Your task to perform on an android device: Look up the best rated gaming chair on Target. Image 0: 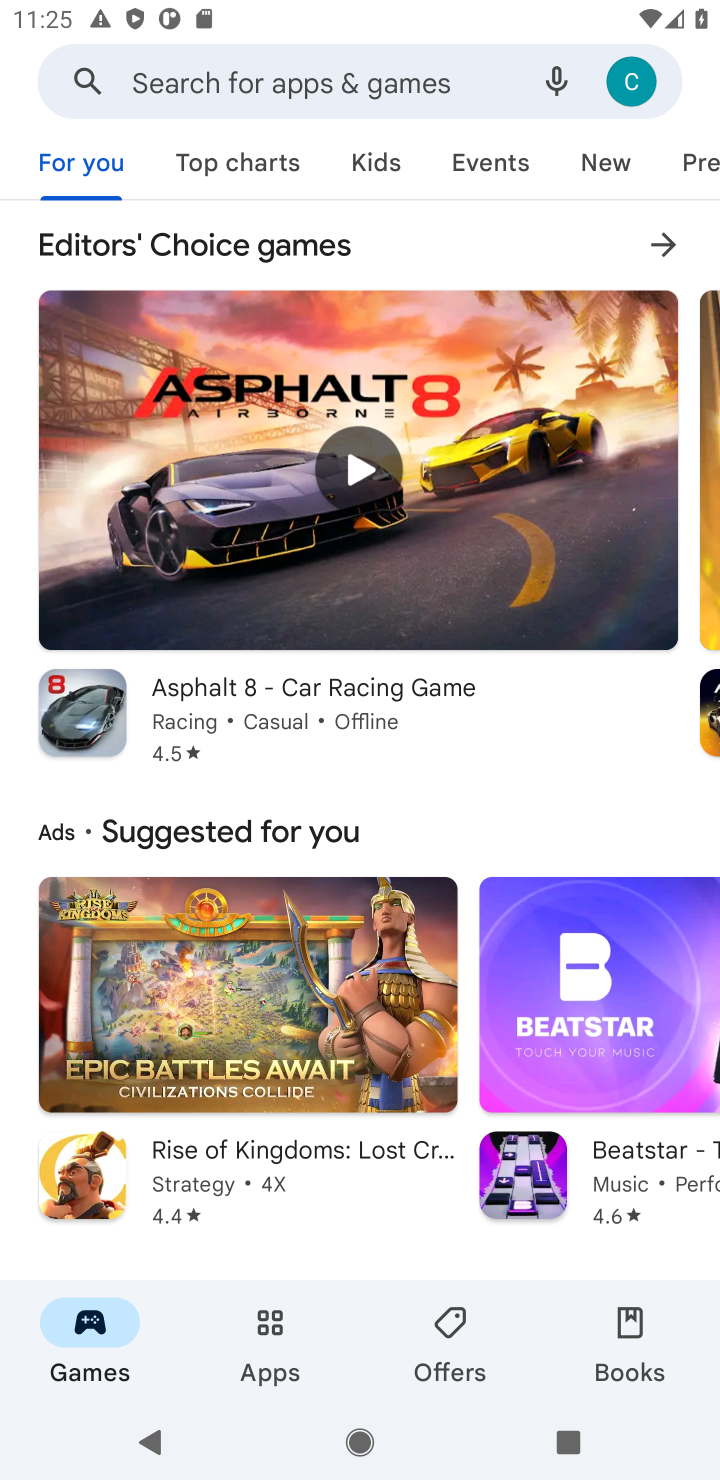
Step 0: press home button
Your task to perform on an android device: Look up the best rated gaming chair on Target. Image 1: 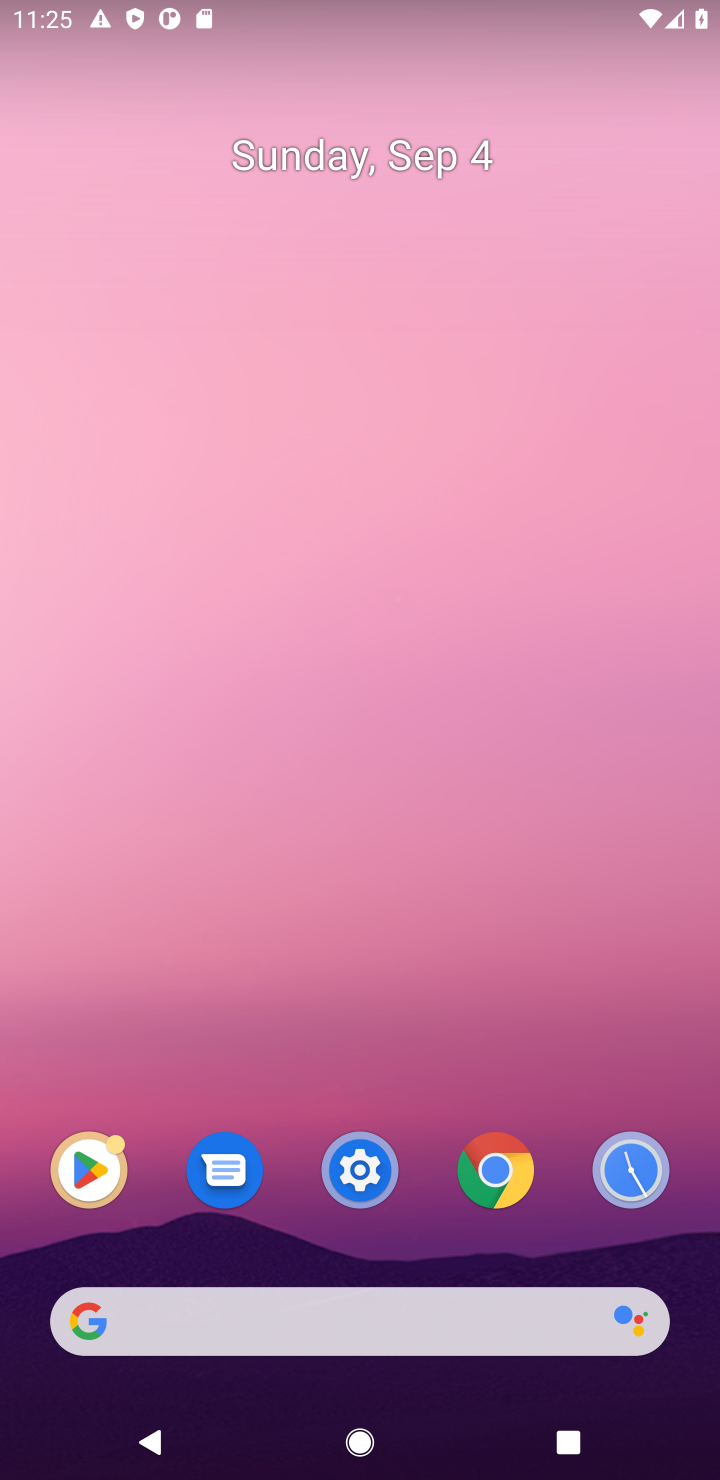
Step 1: click (372, 1314)
Your task to perform on an android device: Look up the best rated gaming chair on Target. Image 2: 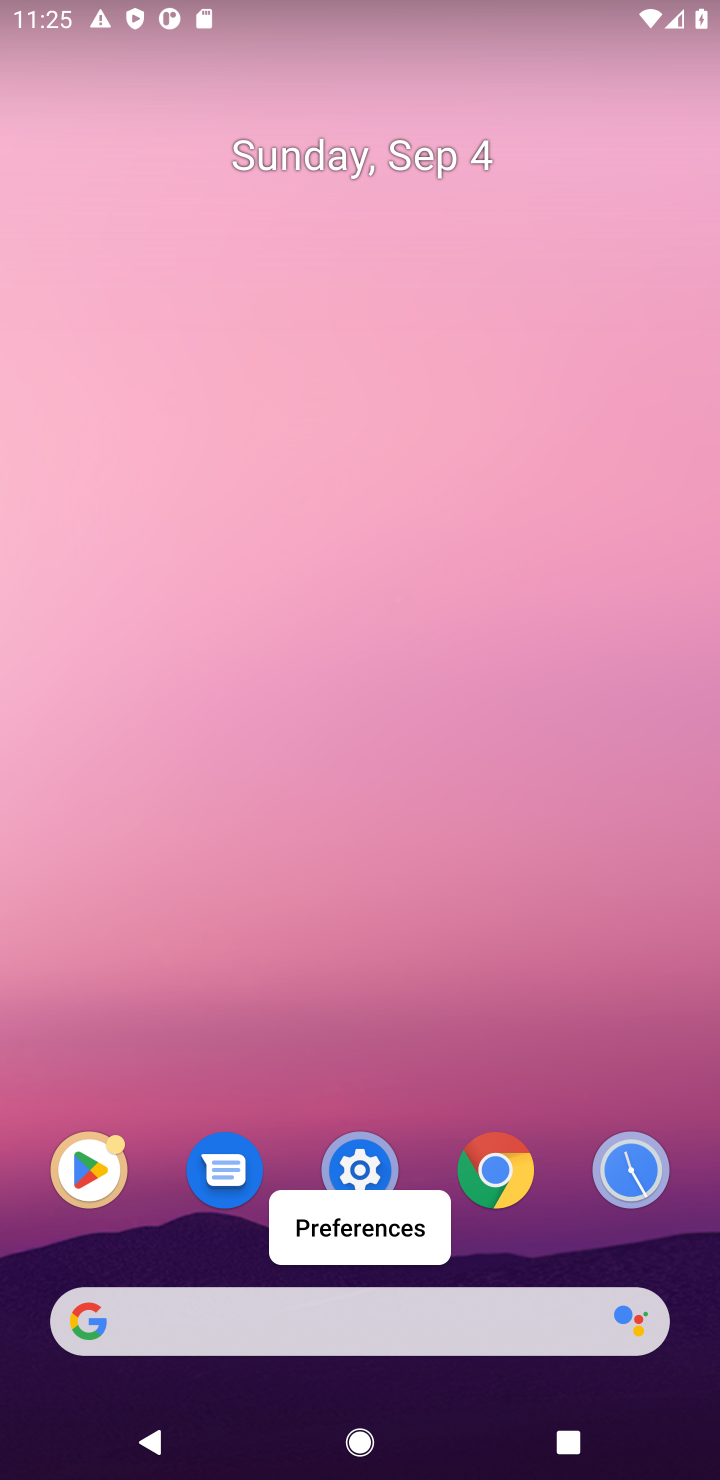
Step 2: click (444, 1331)
Your task to perform on an android device: Look up the best rated gaming chair on Target. Image 3: 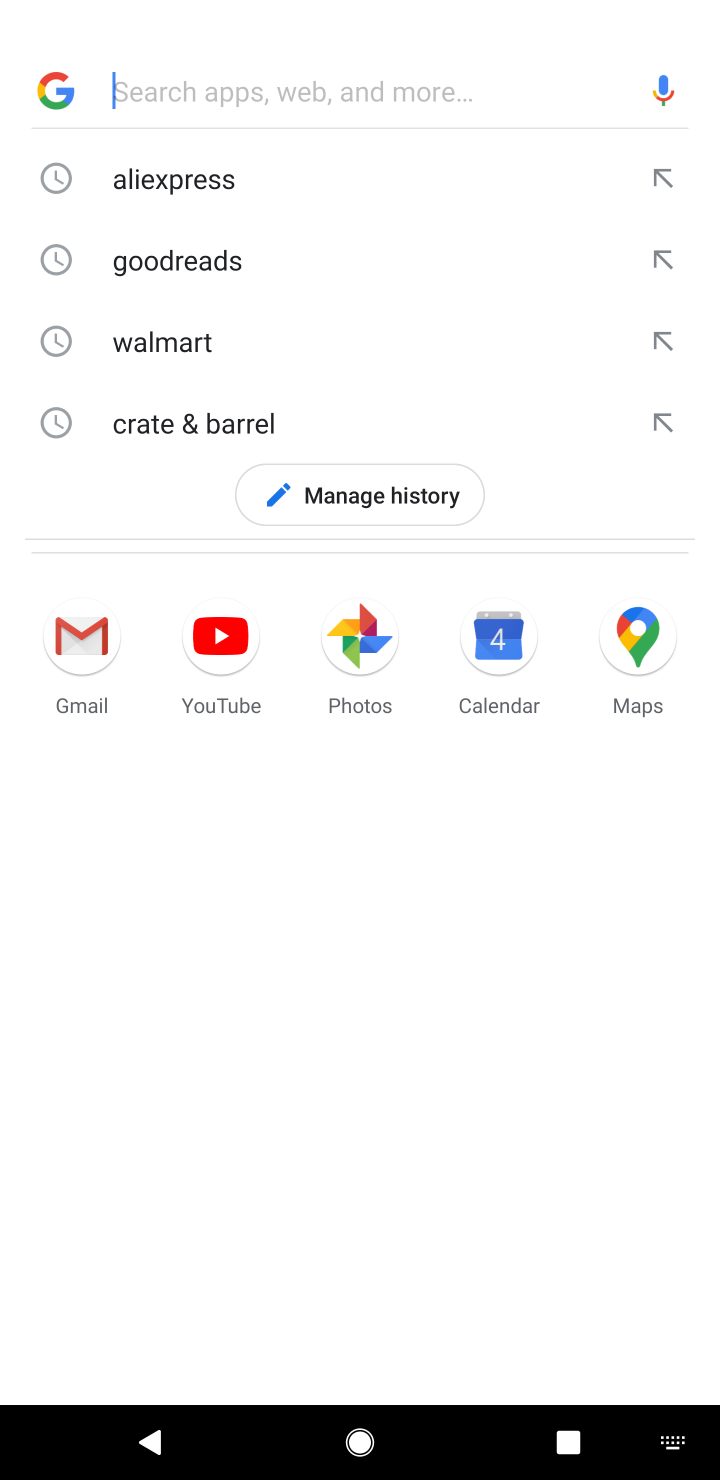
Step 3: type "Target"
Your task to perform on an android device: Look up the best rated gaming chair on Target. Image 4: 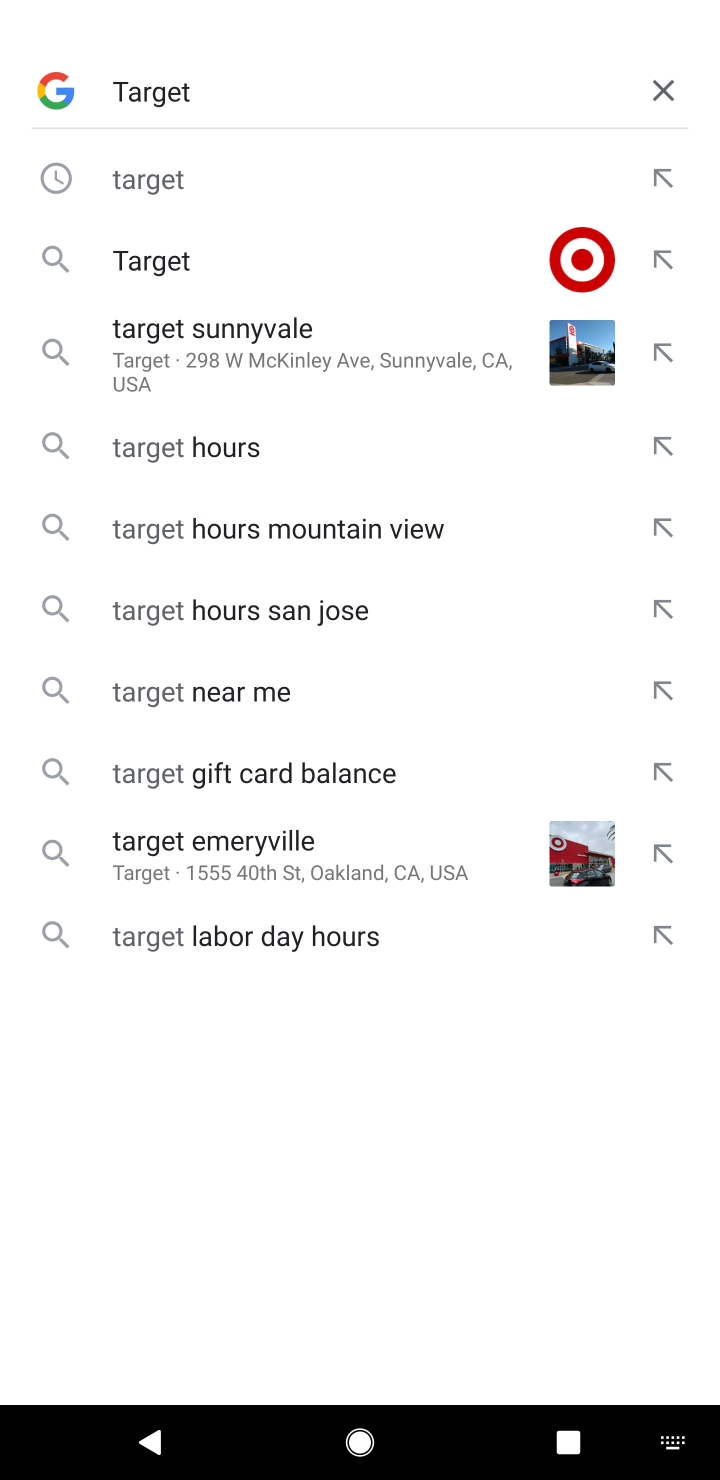
Step 4: type ""
Your task to perform on an android device: Look up the best rated gaming chair on Target. Image 5: 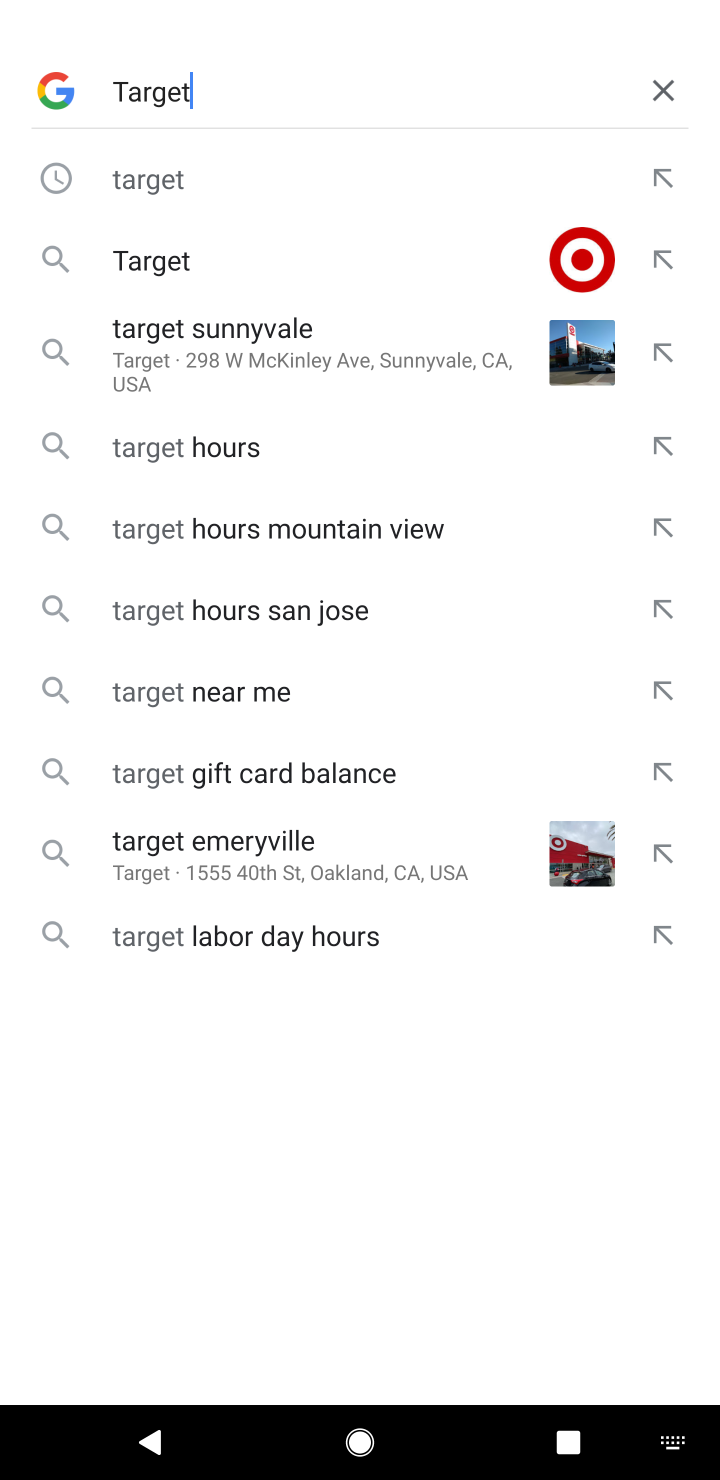
Step 5: click (168, 267)
Your task to perform on an android device: Look up the best rated gaming chair on Target. Image 6: 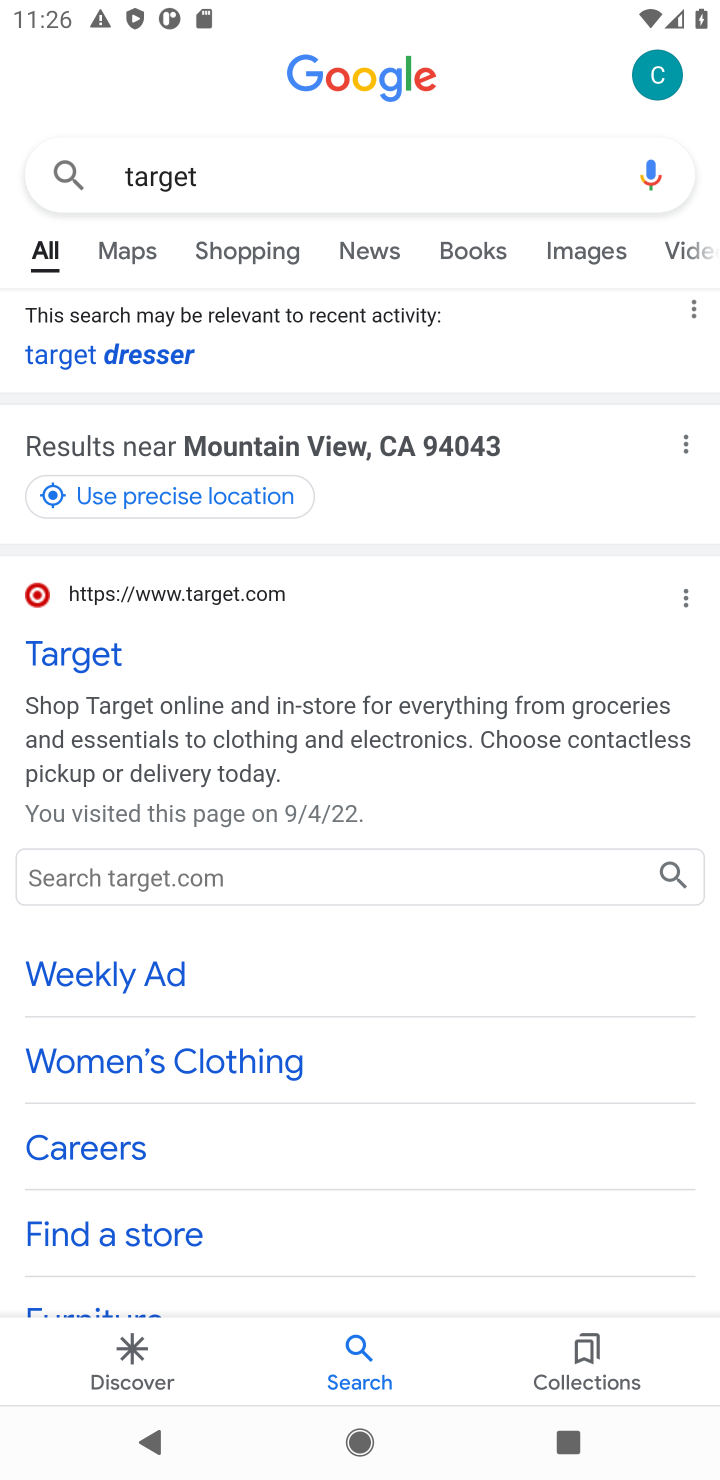
Step 6: click (64, 659)
Your task to perform on an android device: Look up the best rated gaming chair on Target. Image 7: 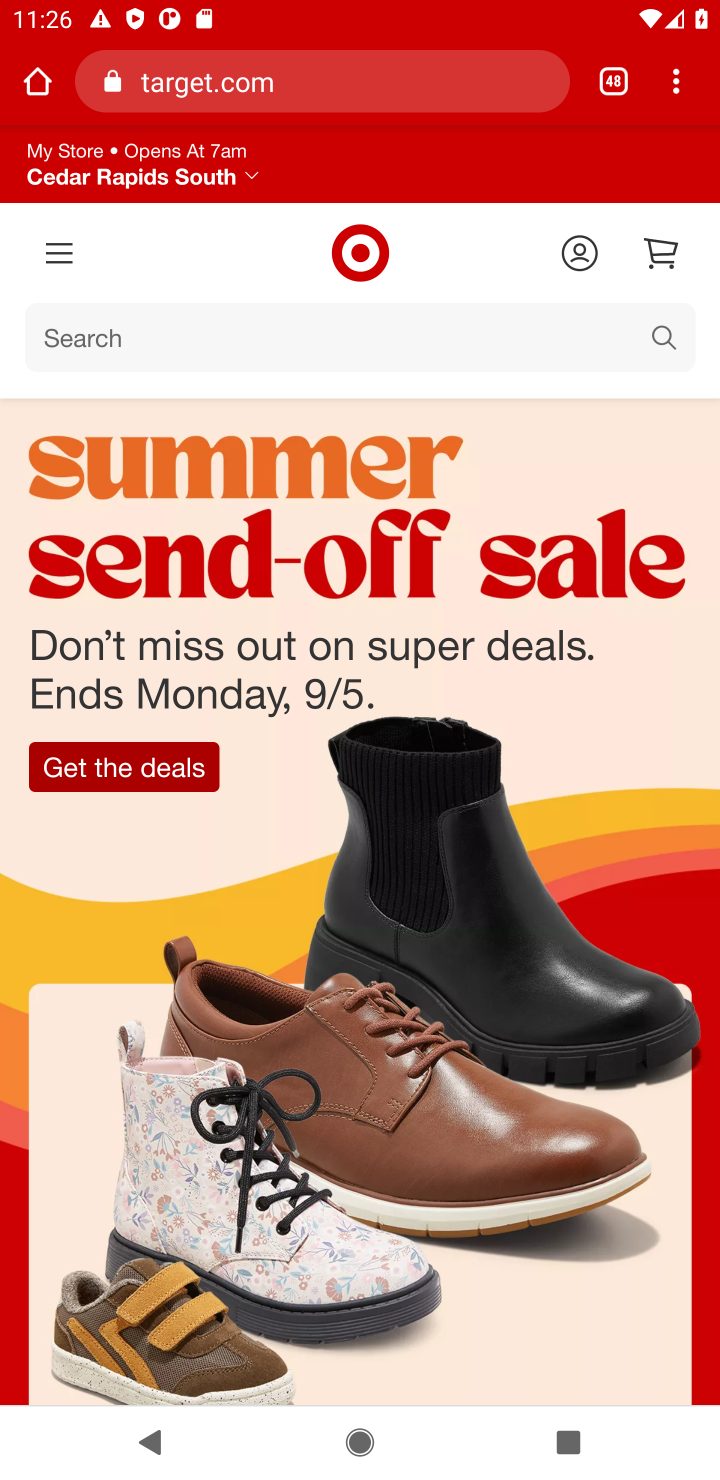
Step 7: task complete